Your task to perform on an android device: Go to eBay Image 0: 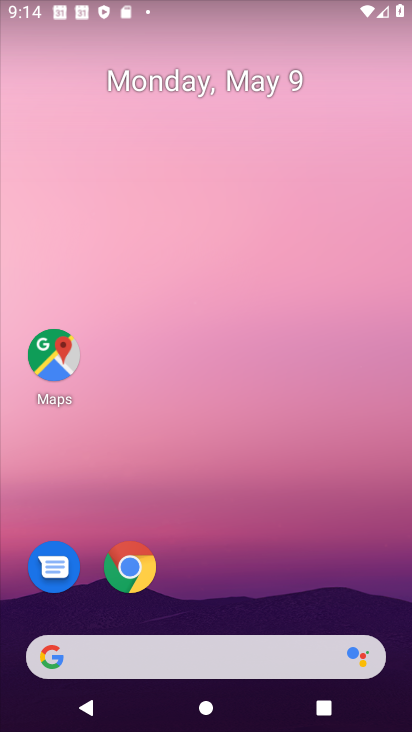
Step 0: drag from (175, 653) to (133, 95)
Your task to perform on an android device: Go to eBay Image 1: 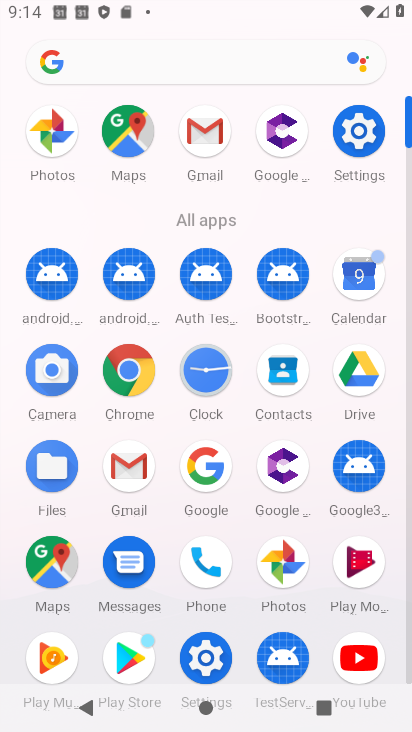
Step 1: click (140, 371)
Your task to perform on an android device: Go to eBay Image 2: 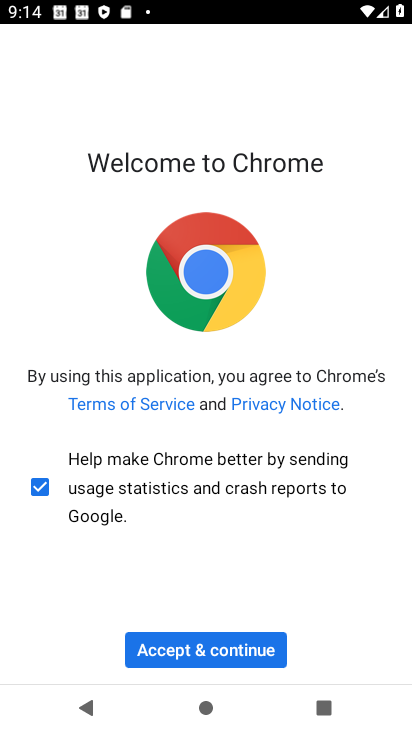
Step 2: click (186, 653)
Your task to perform on an android device: Go to eBay Image 3: 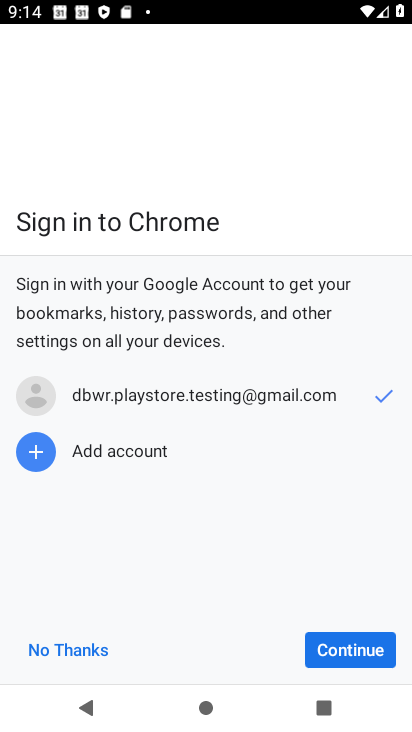
Step 3: click (317, 652)
Your task to perform on an android device: Go to eBay Image 4: 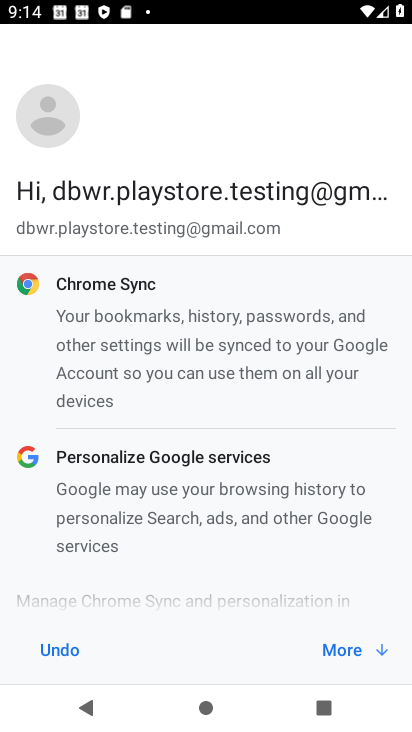
Step 4: click (327, 647)
Your task to perform on an android device: Go to eBay Image 5: 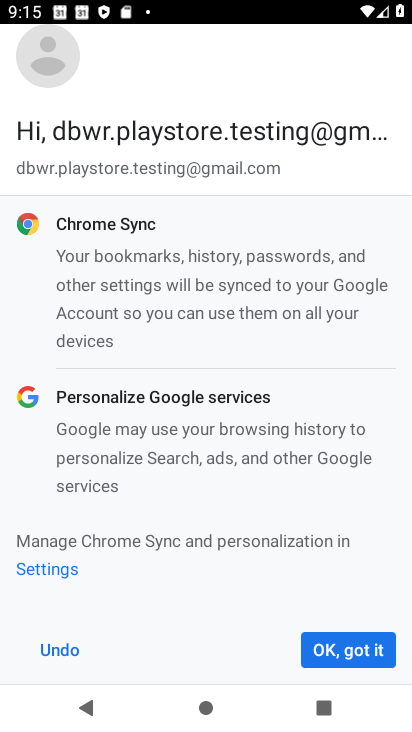
Step 5: click (351, 652)
Your task to perform on an android device: Go to eBay Image 6: 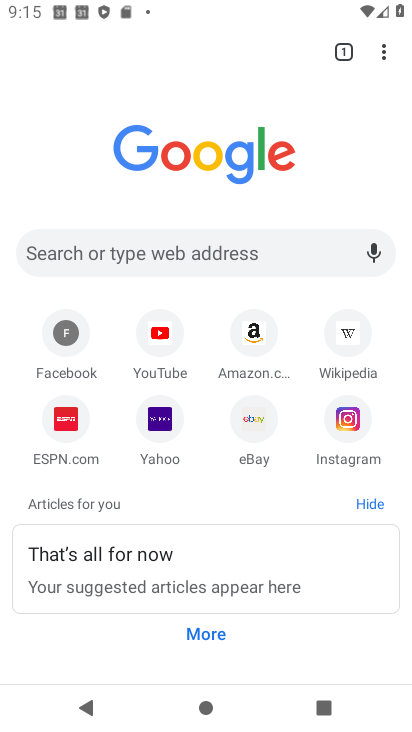
Step 6: click (248, 422)
Your task to perform on an android device: Go to eBay Image 7: 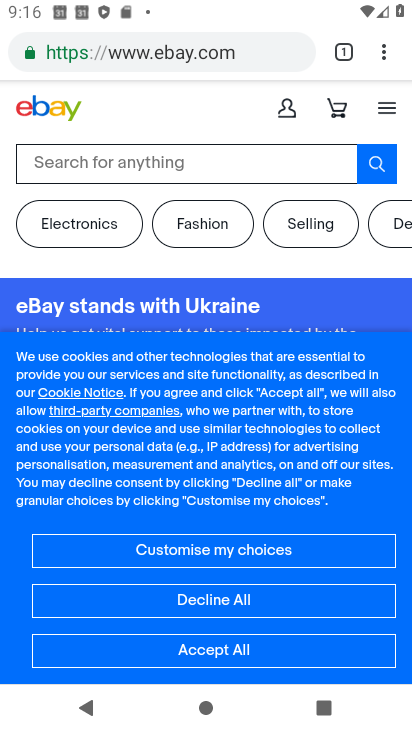
Step 7: task complete